Your task to perform on an android device: What is the recent news? Image 0: 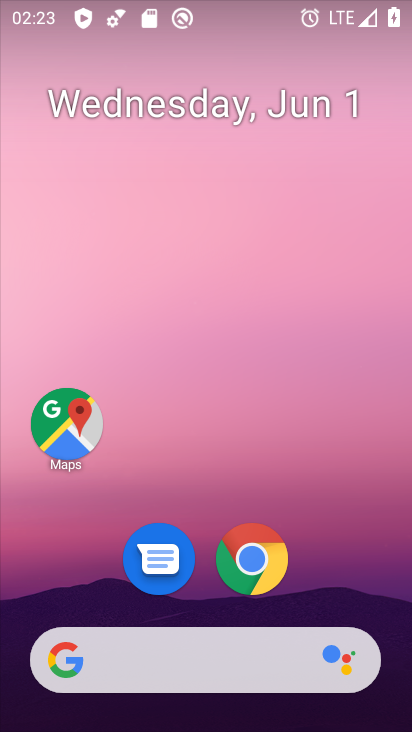
Step 0: press home button
Your task to perform on an android device: What is the recent news? Image 1: 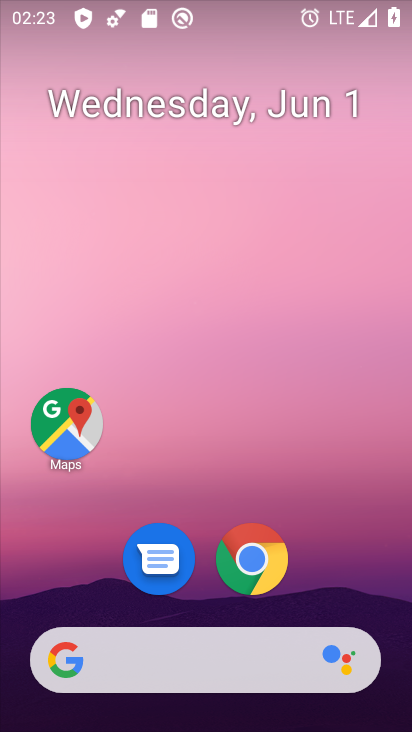
Step 1: click (58, 654)
Your task to perform on an android device: What is the recent news? Image 2: 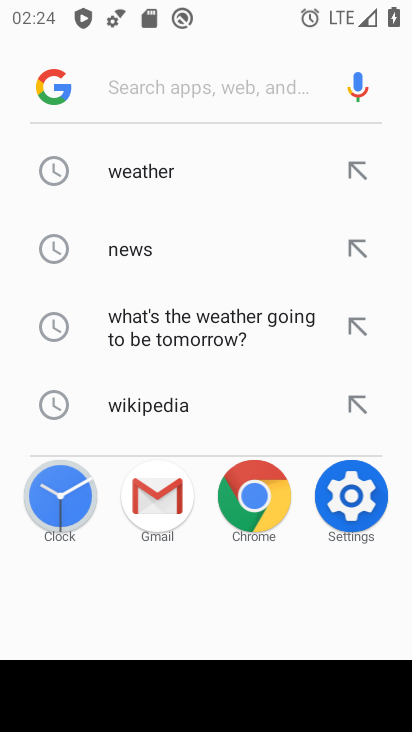
Step 2: type "recent news?"
Your task to perform on an android device: What is the recent news? Image 3: 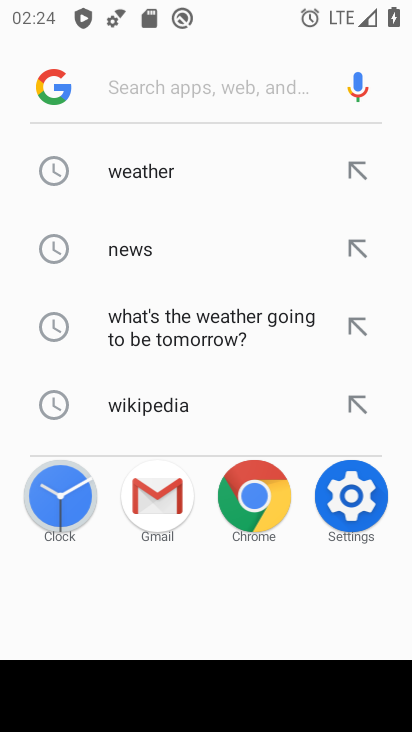
Step 3: click (179, 82)
Your task to perform on an android device: What is the recent news? Image 4: 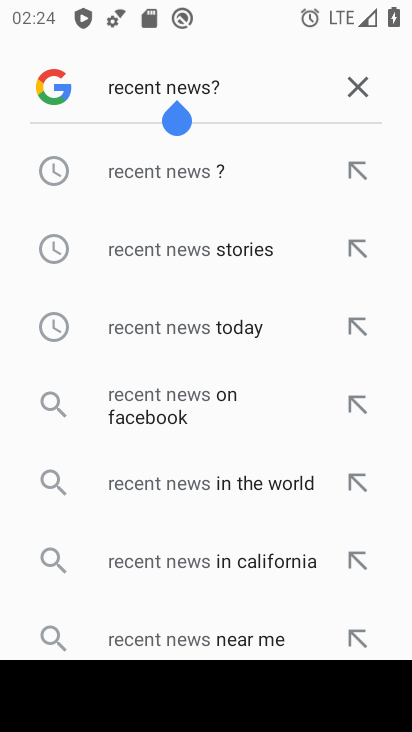
Step 4: click (161, 177)
Your task to perform on an android device: What is the recent news? Image 5: 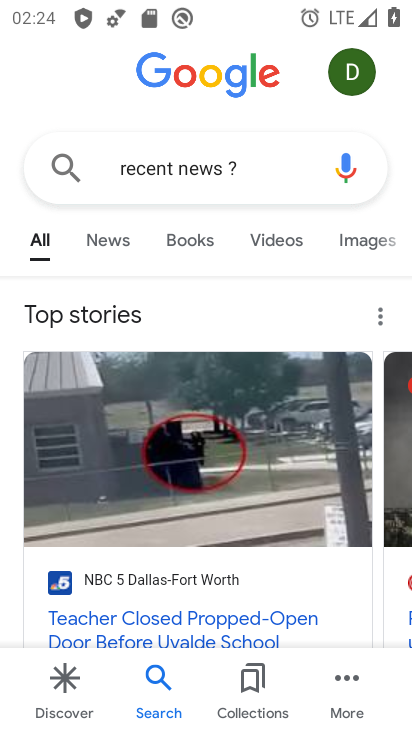
Step 5: task complete